Your task to perform on an android device: Go to Google maps Image 0: 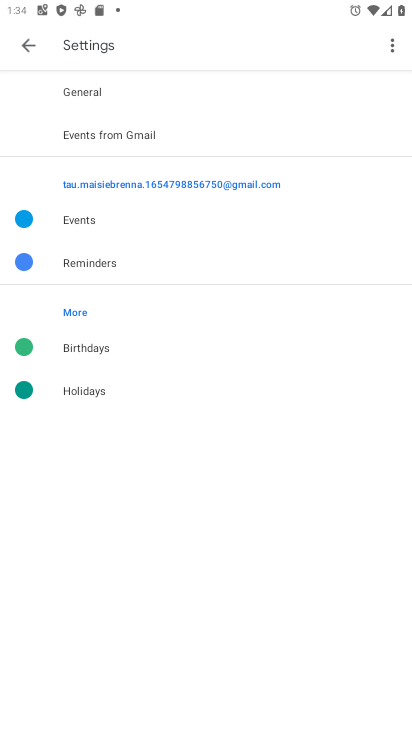
Step 0: press home button
Your task to perform on an android device: Go to Google maps Image 1: 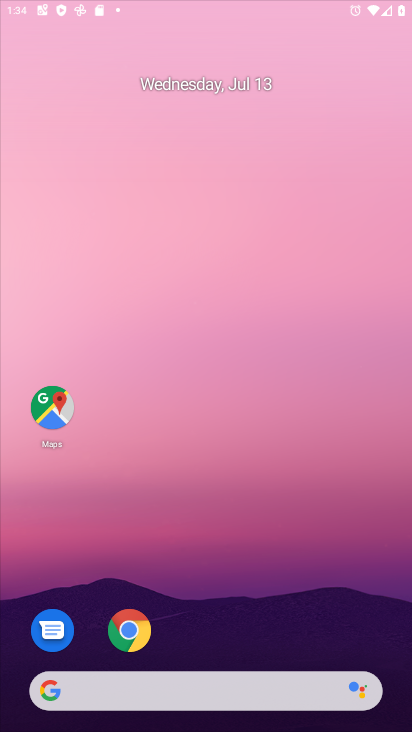
Step 1: drag from (389, 691) to (25, 493)
Your task to perform on an android device: Go to Google maps Image 2: 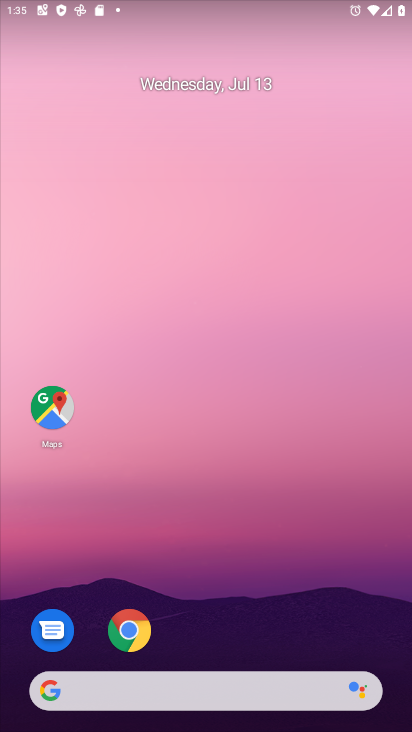
Step 2: drag from (397, 664) to (285, 3)
Your task to perform on an android device: Go to Google maps Image 3: 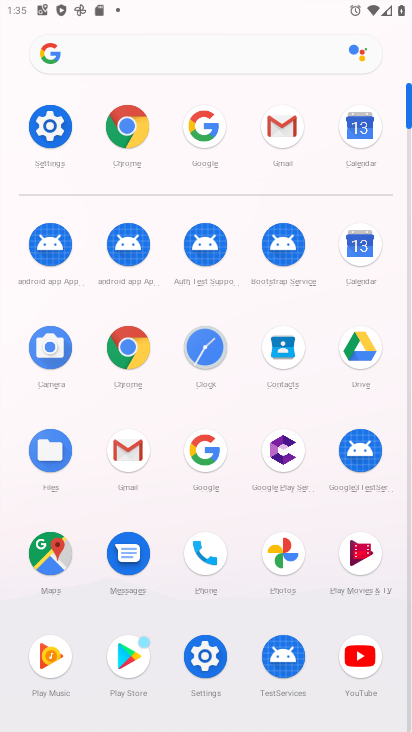
Step 3: click (51, 548)
Your task to perform on an android device: Go to Google maps Image 4: 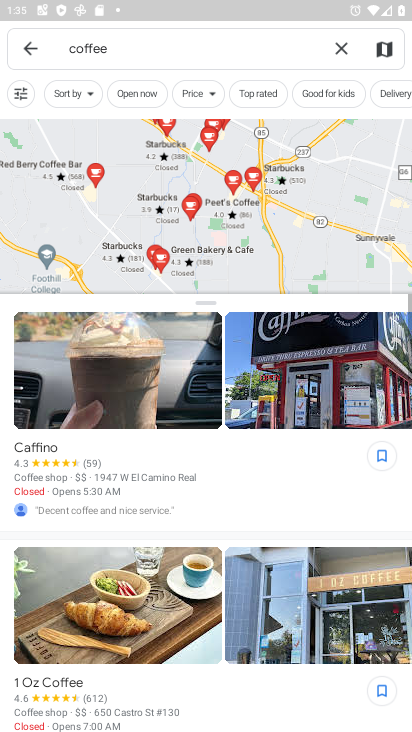
Step 4: click (331, 48)
Your task to perform on an android device: Go to Google maps Image 5: 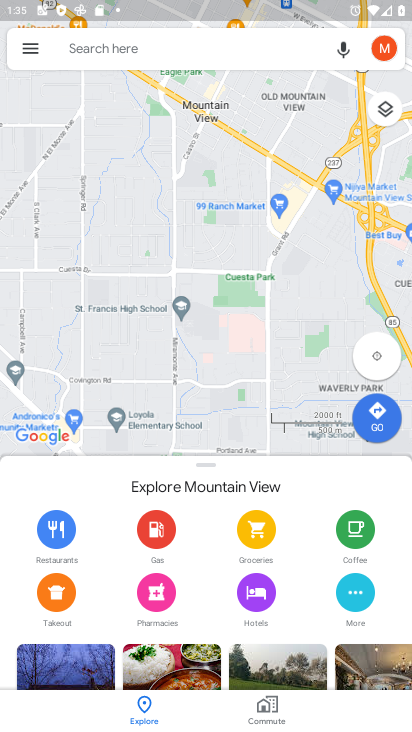
Step 5: task complete